Your task to perform on an android device: open chrome privacy settings Image 0: 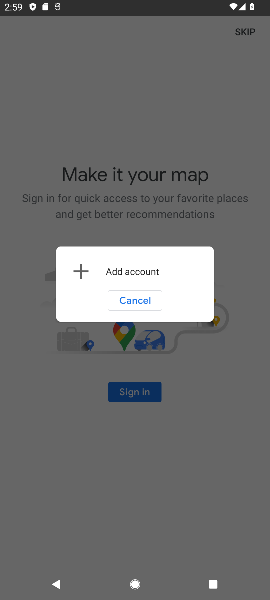
Step 0: press home button
Your task to perform on an android device: open chrome privacy settings Image 1: 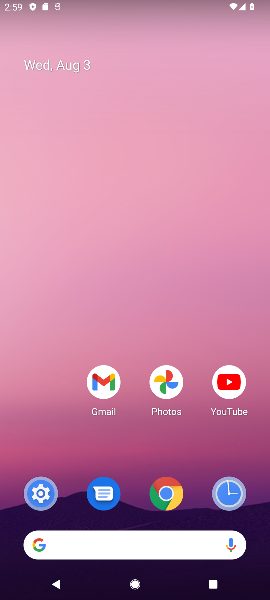
Step 1: drag from (194, 462) to (268, 107)
Your task to perform on an android device: open chrome privacy settings Image 2: 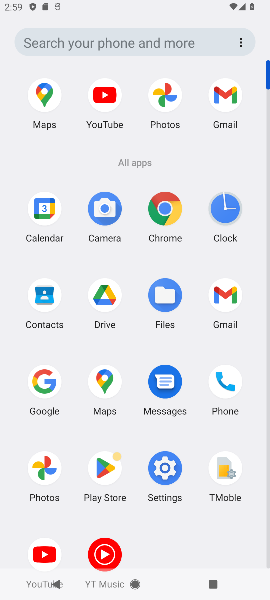
Step 2: click (169, 217)
Your task to perform on an android device: open chrome privacy settings Image 3: 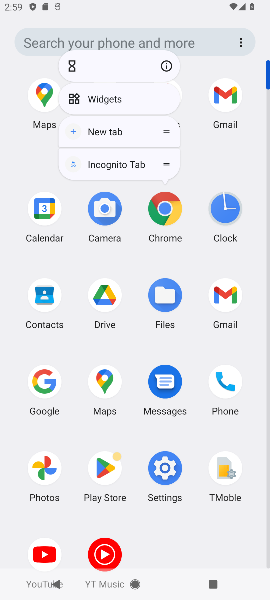
Step 3: click (167, 215)
Your task to perform on an android device: open chrome privacy settings Image 4: 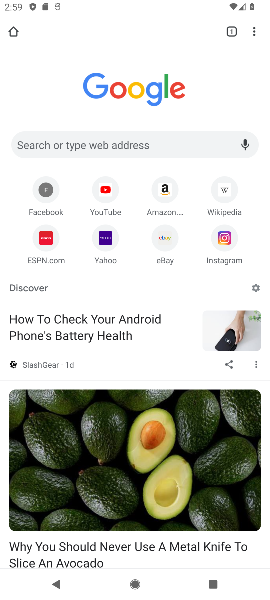
Step 4: drag from (265, 37) to (160, 259)
Your task to perform on an android device: open chrome privacy settings Image 5: 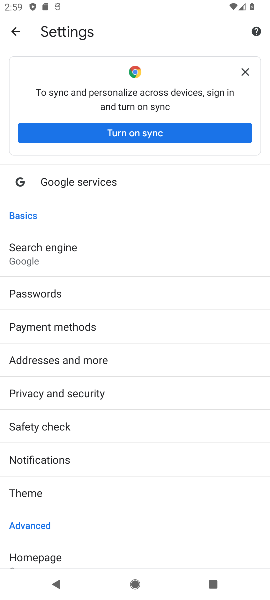
Step 5: drag from (112, 515) to (189, 249)
Your task to perform on an android device: open chrome privacy settings Image 6: 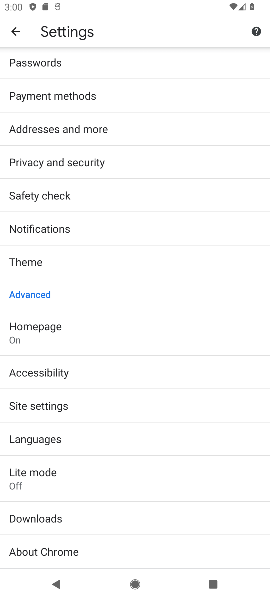
Step 6: drag from (84, 228) to (100, 198)
Your task to perform on an android device: open chrome privacy settings Image 7: 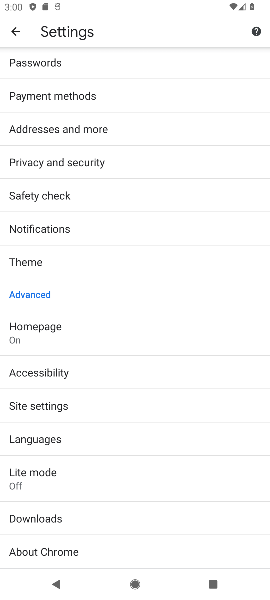
Step 7: drag from (94, 489) to (126, 265)
Your task to perform on an android device: open chrome privacy settings Image 8: 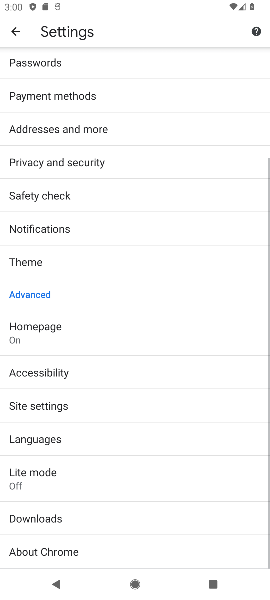
Step 8: drag from (108, 321) to (59, 575)
Your task to perform on an android device: open chrome privacy settings Image 9: 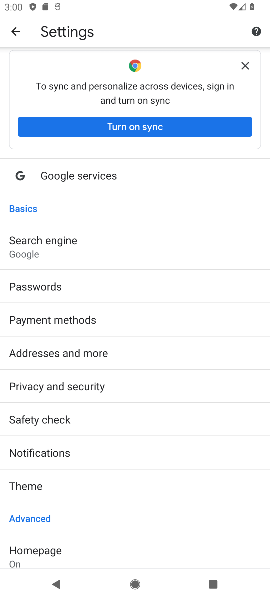
Step 9: click (19, 35)
Your task to perform on an android device: open chrome privacy settings Image 10: 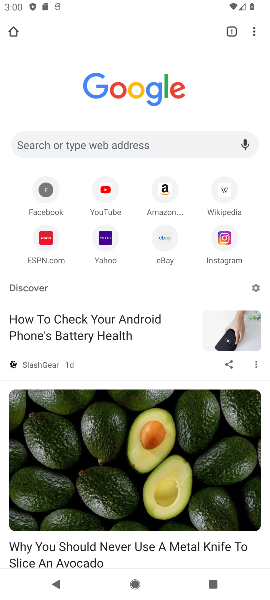
Step 10: drag from (255, 29) to (162, 259)
Your task to perform on an android device: open chrome privacy settings Image 11: 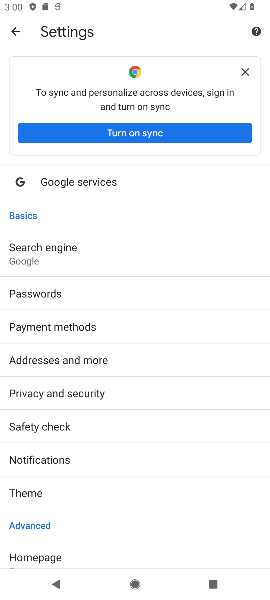
Step 11: click (47, 387)
Your task to perform on an android device: open chrome privacy settings Image 12: 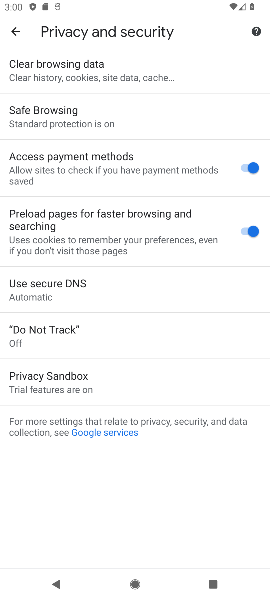
Step 12: task complete